Your task to perform on an android device: turn off wifi Image 0: 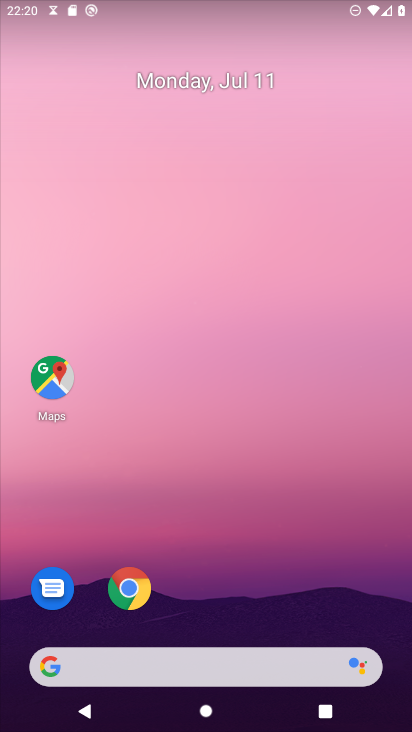
Step 0: press home button
Your task to perform on an android device: turn off wifi Image 1: 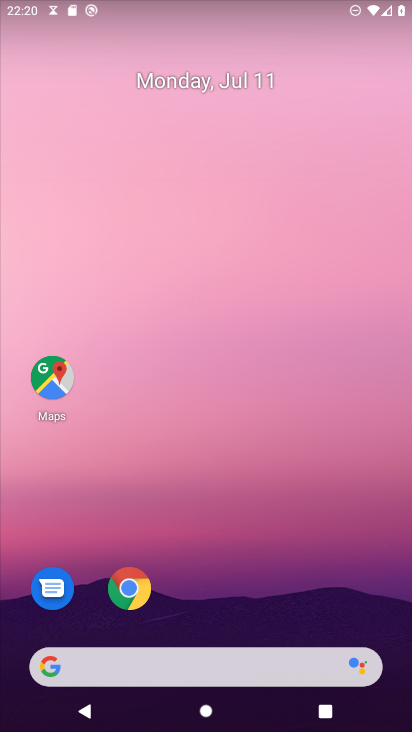
Step 1: drag from (269, 602) to (250, 95)
Your task to perform on an android device: turn off wifi Image 2: 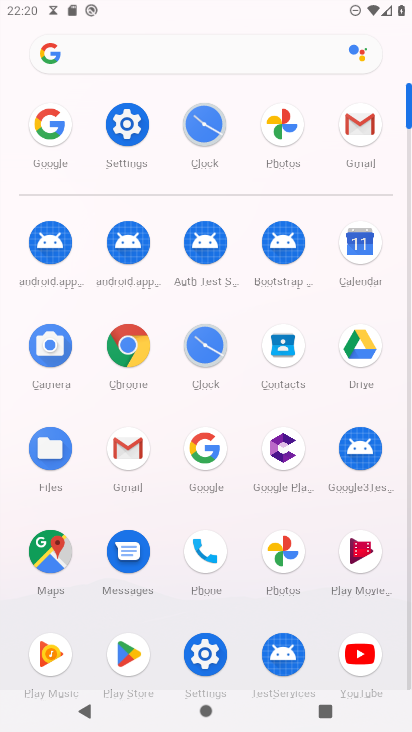
Step 2: click (141, 129)
Your task to perform on an android device: turn off wifi Image 3: 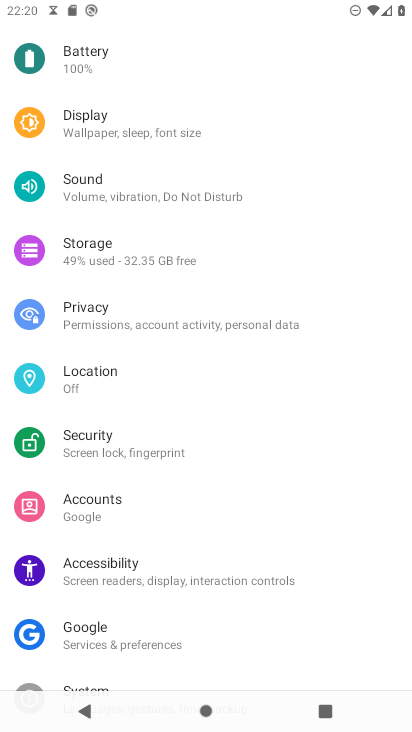
Step 3: drag from (199, 94) to (234, 568)
Your task to perform on an android device: turn off wifi Image 4: 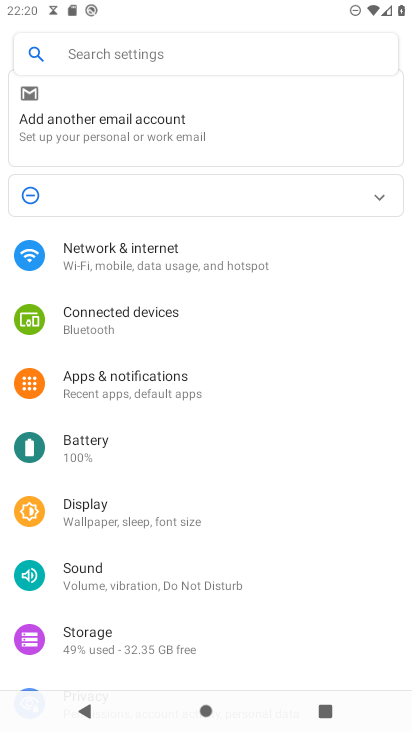
Step 4: click (179, 254)
Your task to perform on an android device: turn off wifi Image 5: 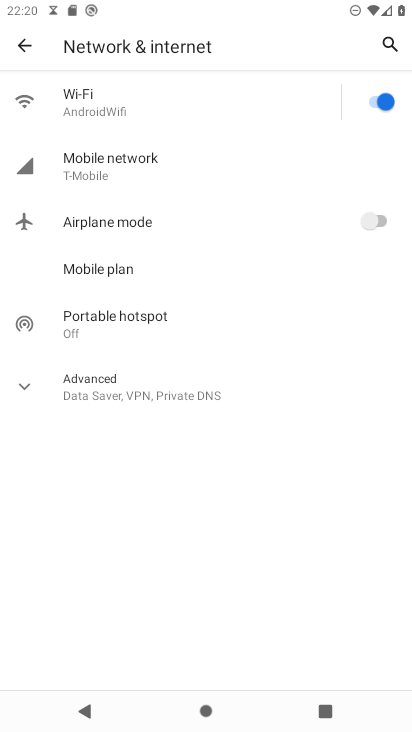
Step 5: click (383, 94)
Your task to perform on an android device: turn off wifi Image 6: 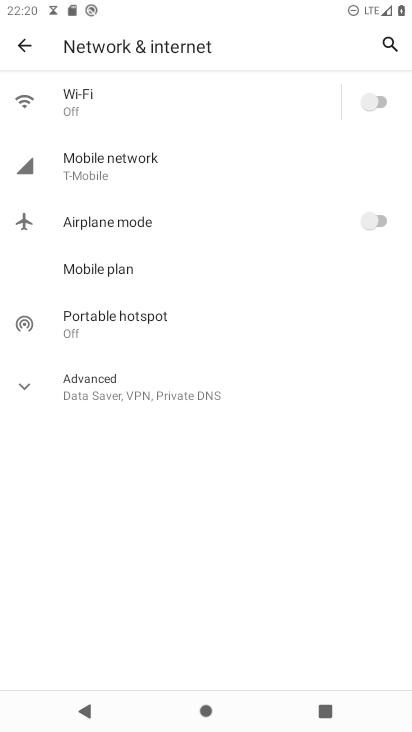
Step 6: task complete